Your task to perform on an android device: Search for a runner rug on Crate & Barrel. Image 0: 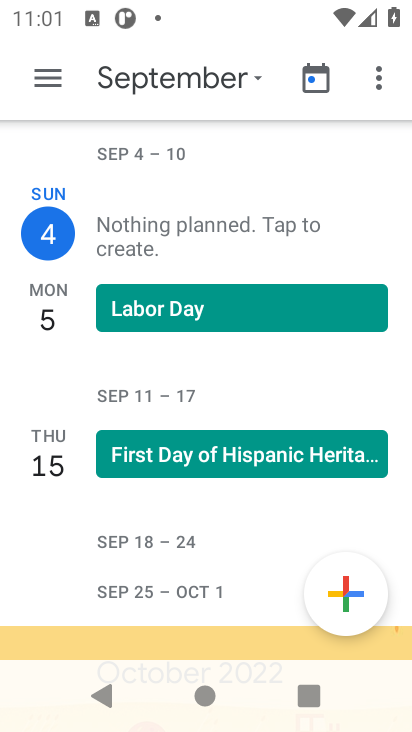
Step 0: task complete